Your task to perform on an android device: empty trash in google photos Image 0: 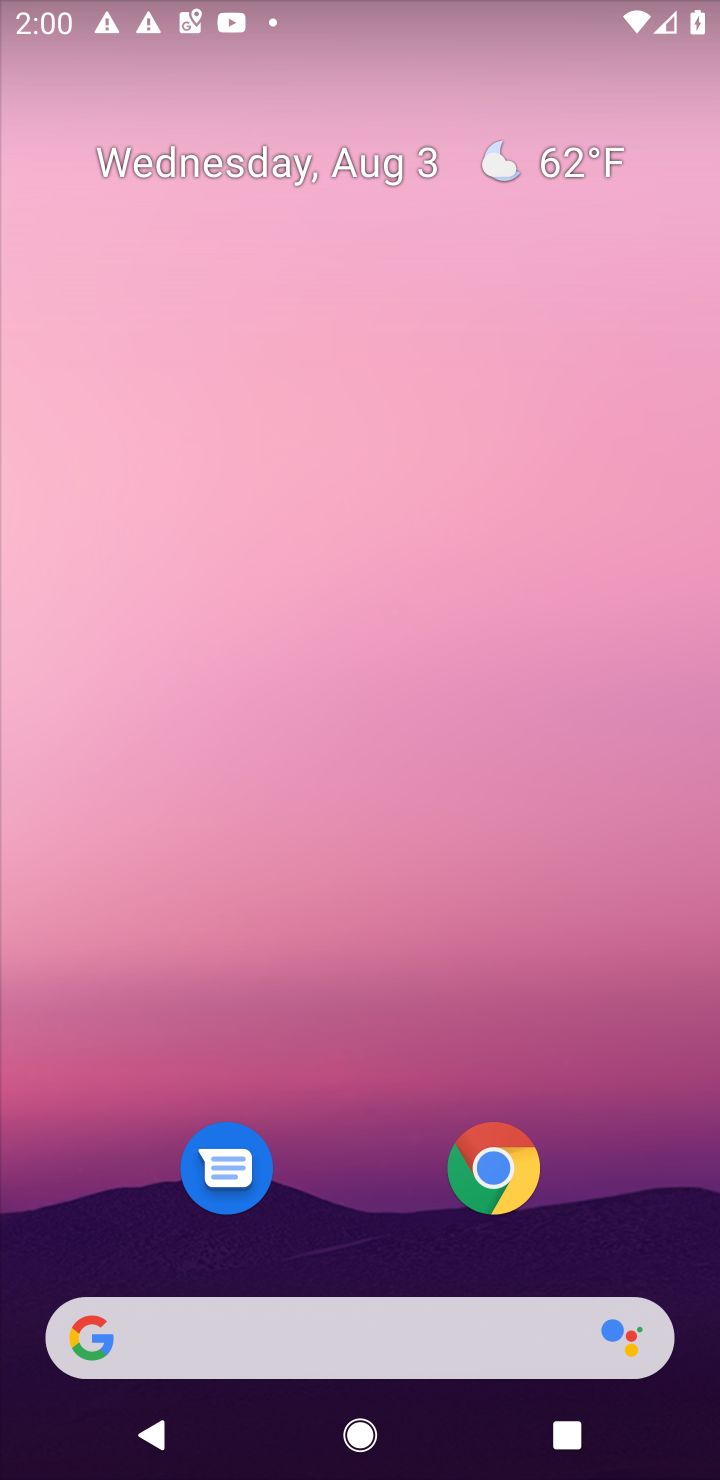
Step 0: drag from (675, 1253) to (611, 143)
Your task to perform on an android device: empty trash in google photos Image 1: 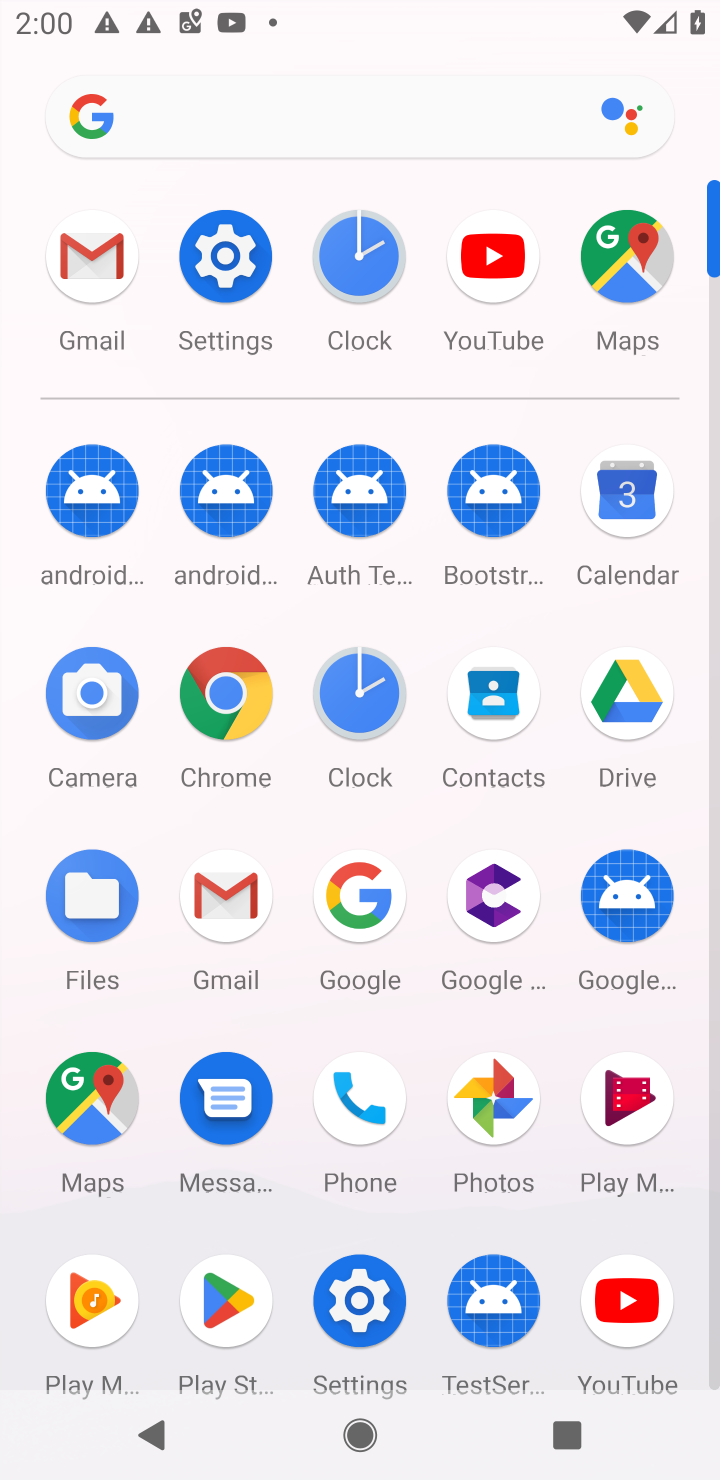
Step 1: click (491, 1097)
Your task to perform on an android device: empty trash in google photos Image 2: 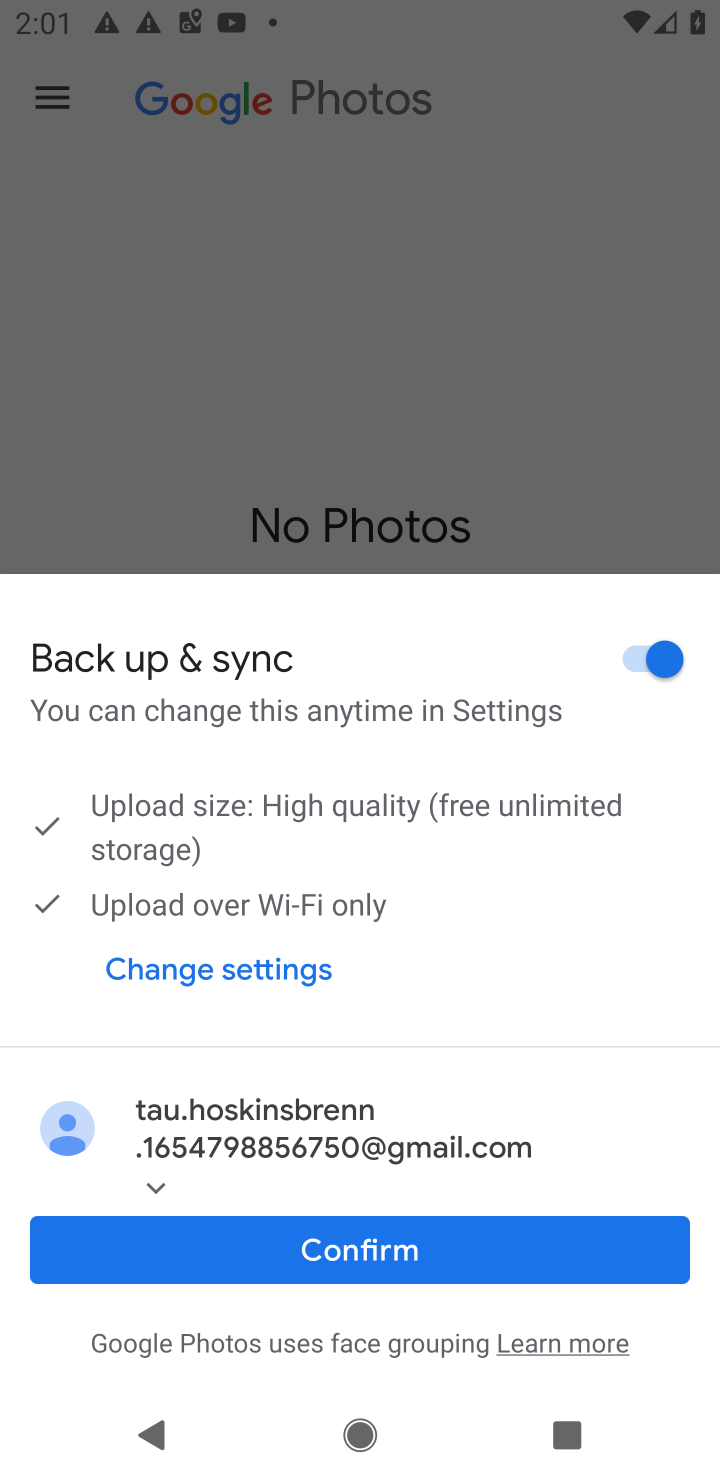
Step 2: click (349, 1249)
Your task to perform on an android device: empty trash in google photos Image 3: 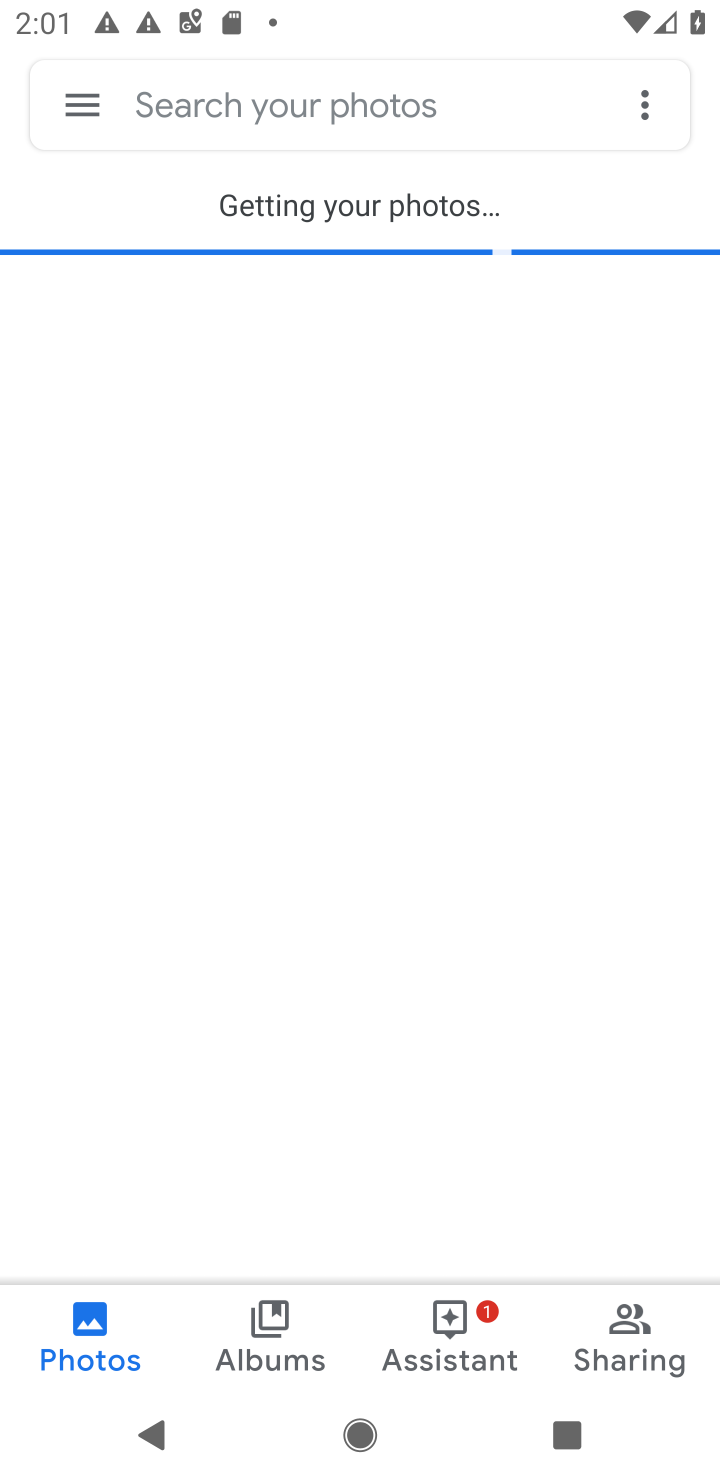
Step 3: click (81, 107)
Your task to perform on an android device: empty trash in google photos Image 4: 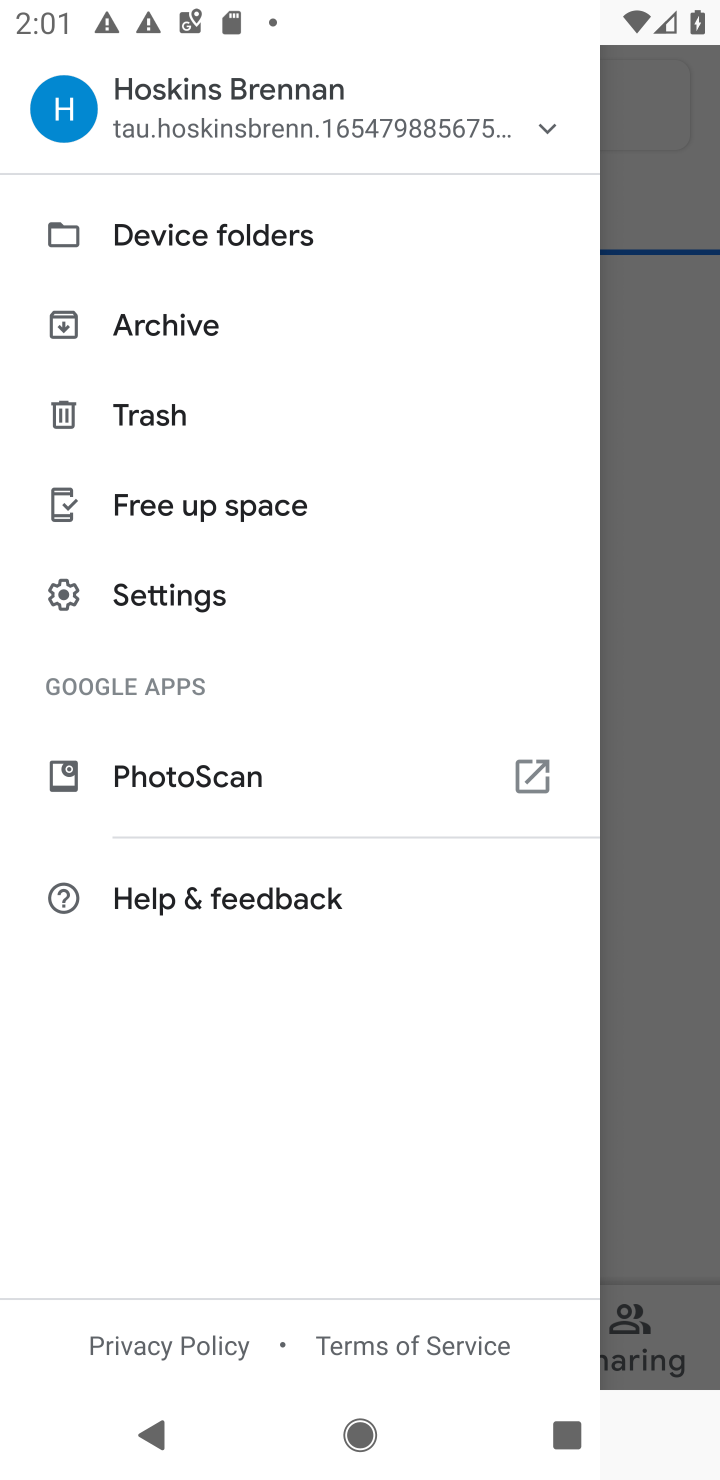
Step 4: click (149, 412)
Your task to perform on an android device: empty trash in google photos Image 5: 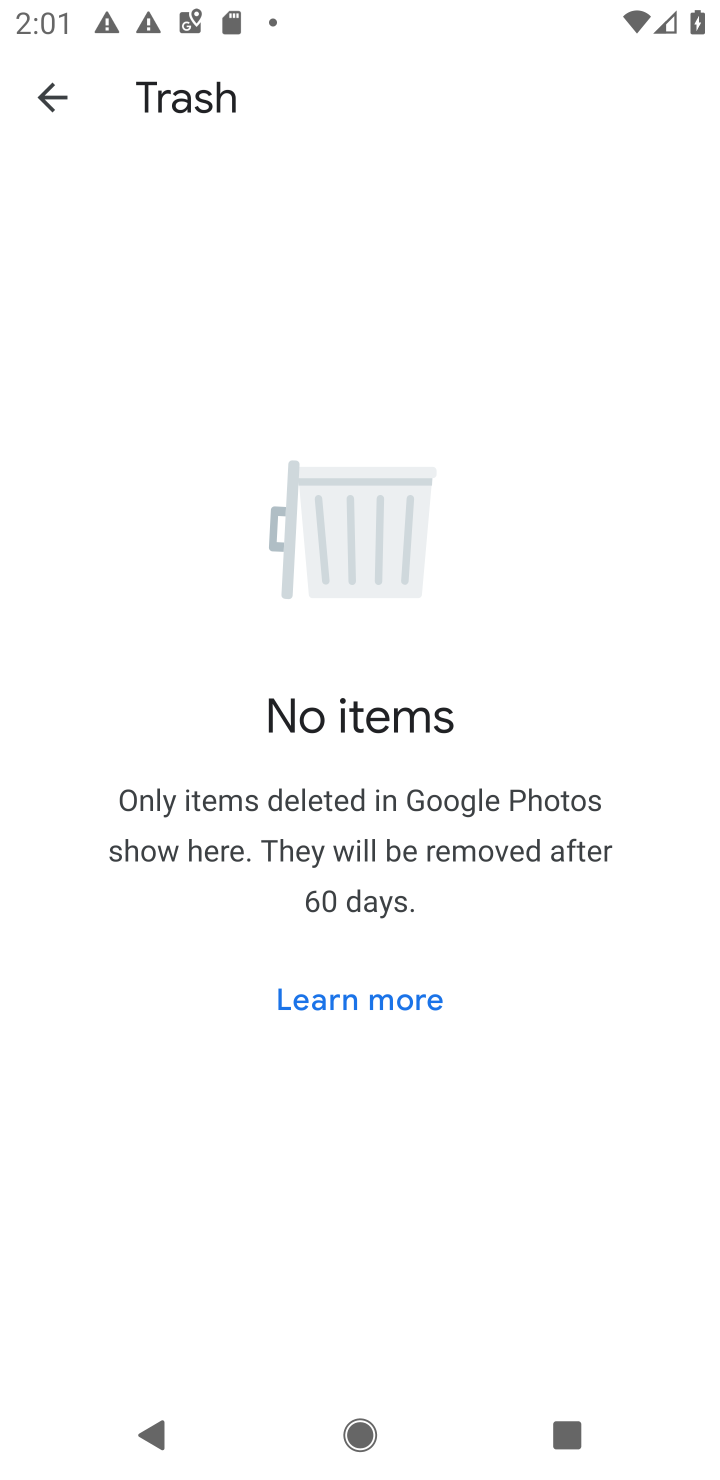
Step 5: task complete